Your task to perform on an android device: Go to display settings Image 0: 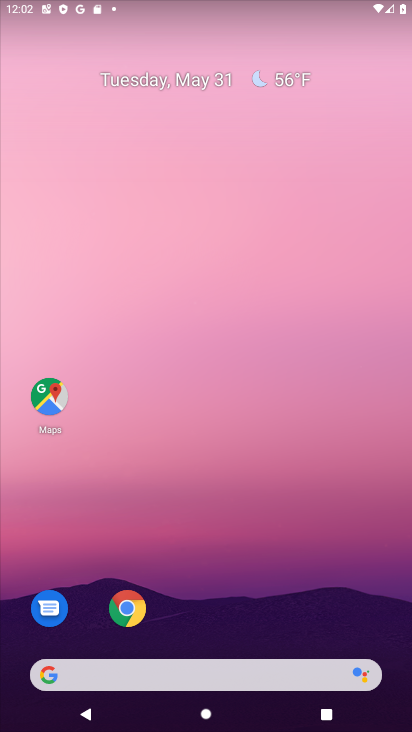
Step 0: drag from (196, 603) to (253, 137)
Your task to perform on an android device: Go to display settings Image 1: 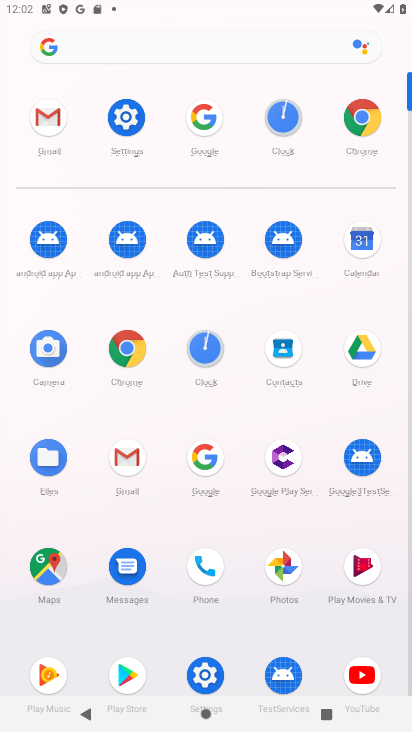
Step 1: click (121, 117)
Your task to perform on an android device: Go to display settings Image 2: 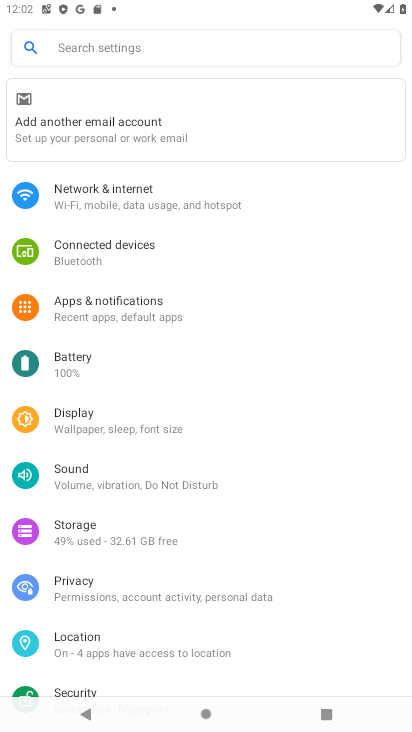
Step 2: click (79, 412)
Your task to perform on an android device: Go to display settings Image 3: 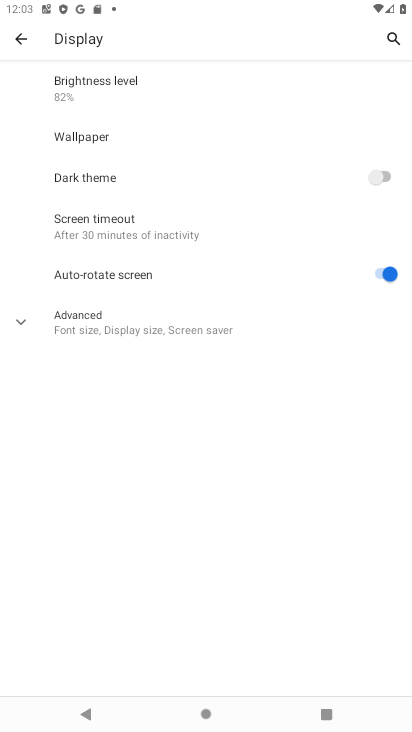
Step 3: task complete